Your task to perform on an android device: Open notification settings Image 0: 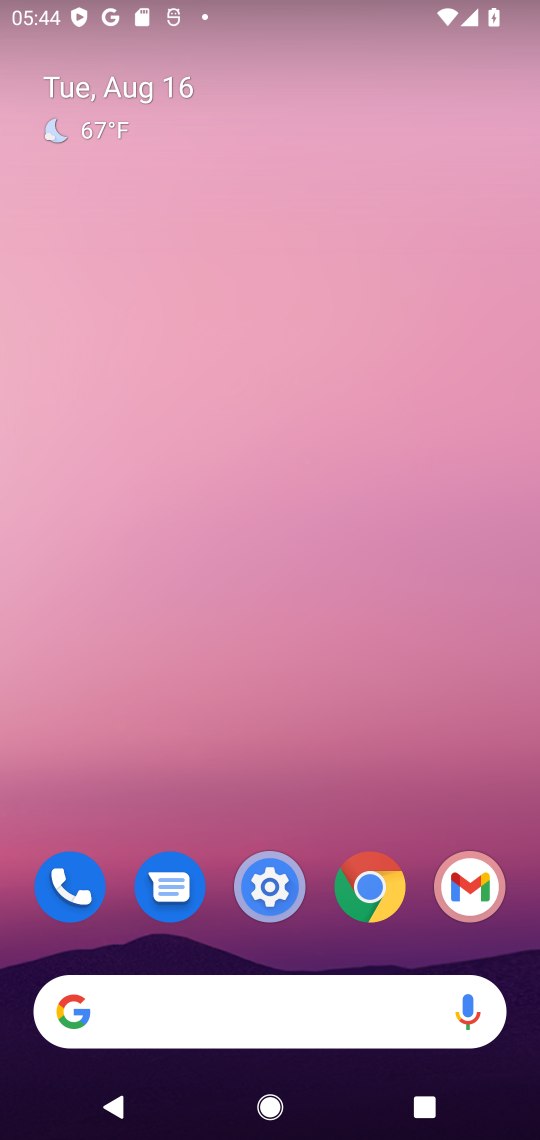
Step 0: drag from (330, 497) to (310, 4)
Your task to perform on an android device: Open notification settings Image 1: 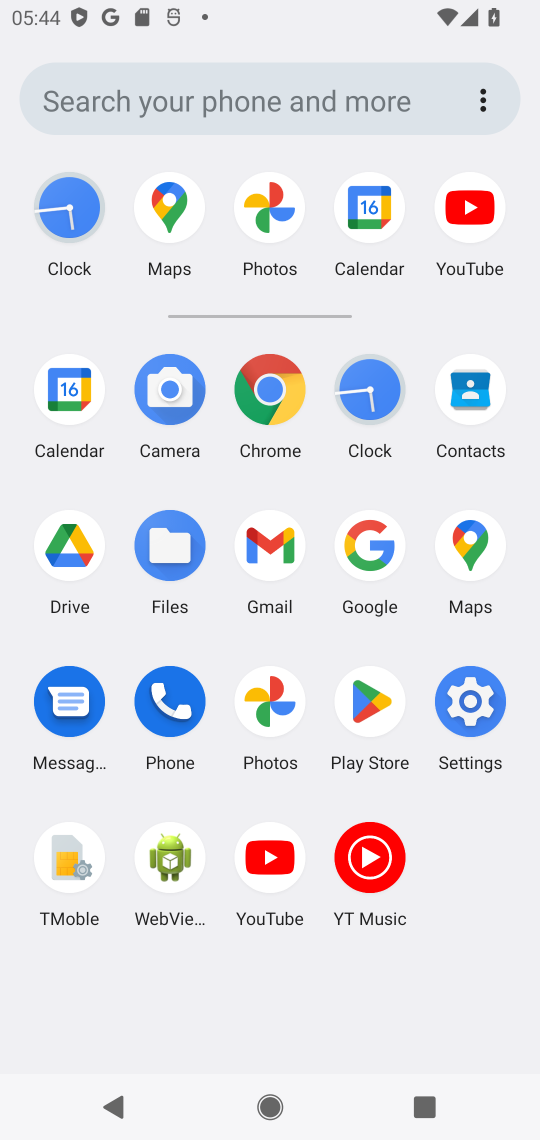
Step 1: click (473, 713)
Your task to perform on an android device: Open notification settings Image 2: 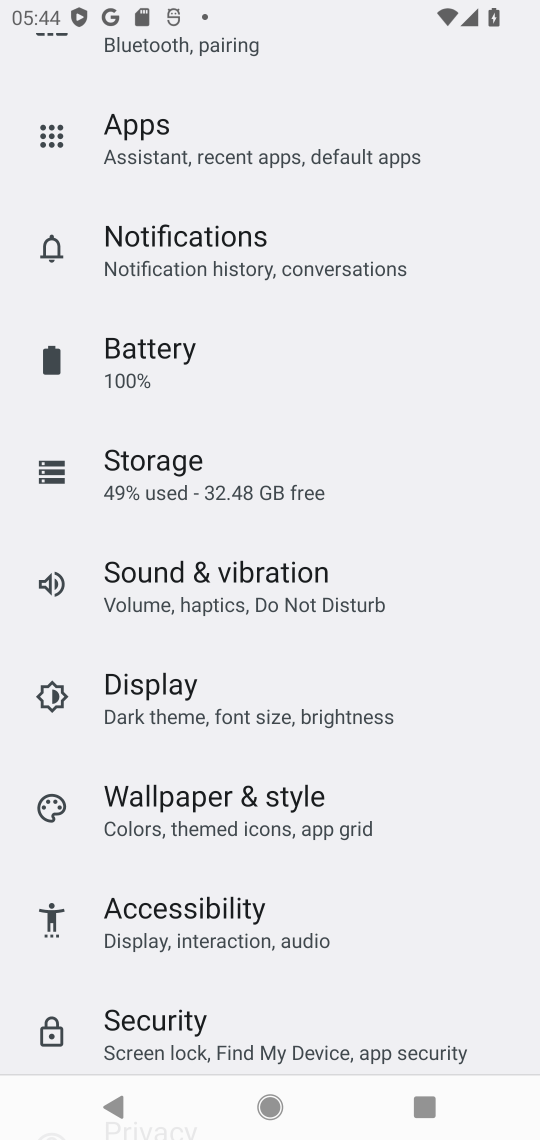
Step 2: click (253, 230)
Your task to perform on an android device: Open notification settings Image 3: 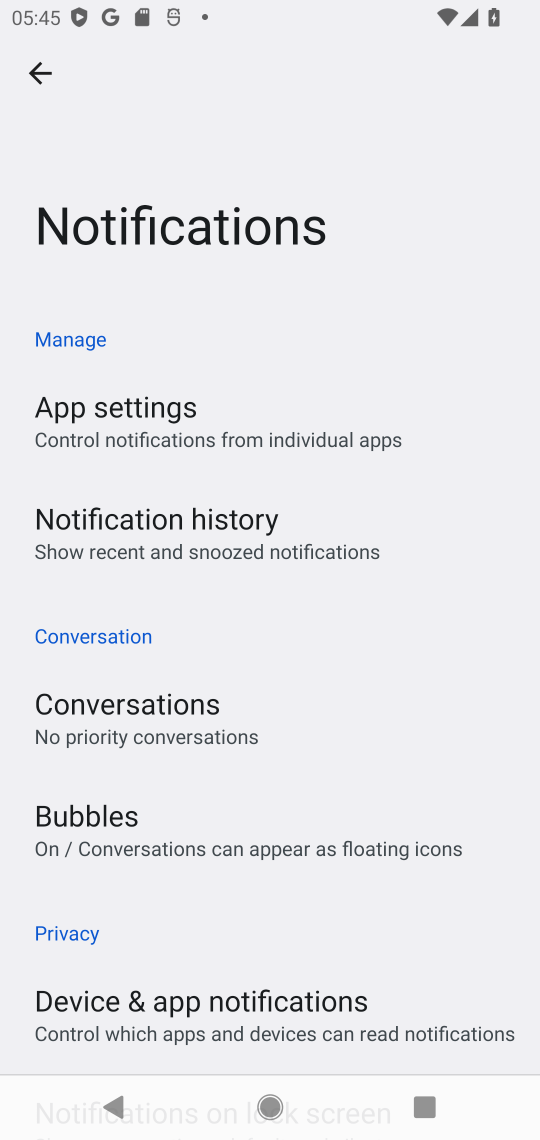
Step 3: task complete